Your task to perform on an android device: turn on bluetooth scan Image 0: 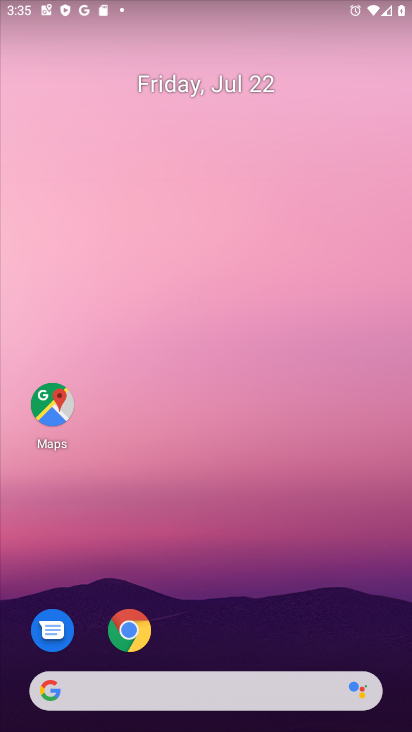
Step 0: drag from (220, 689) to (88, 84)
Your task to perform on an android device: turn on bluetooth scan Image 1: 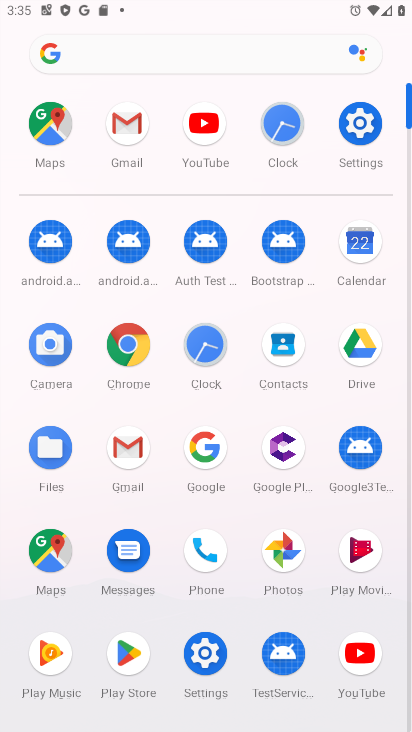
Step 1: click (341, 132)
Your task to perform on an android device: turn on bluetooth scan Image 2: 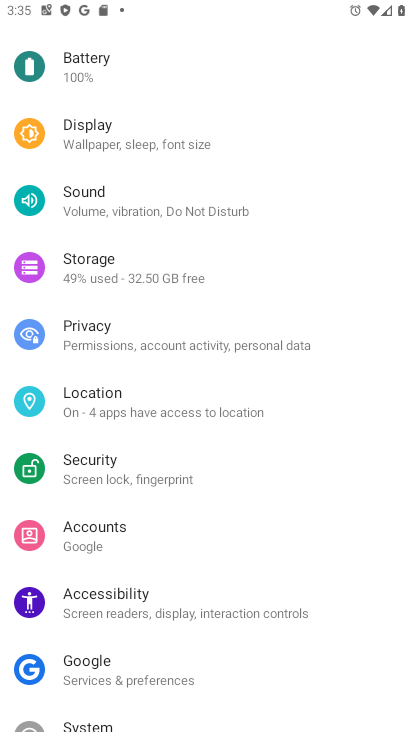
Step 2: click (164, 220)
Your task to perform on an android device: turn on bluetooth scan Image 3: 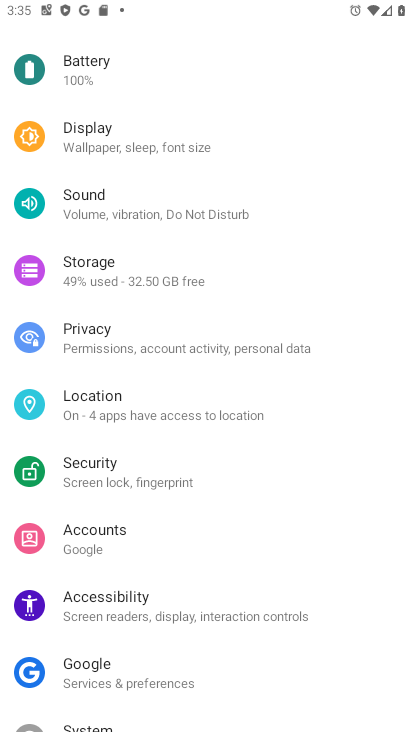
Step 3: click (105, 385)
Your task to perform on an android device: turn on bluetooth scan Image 4: 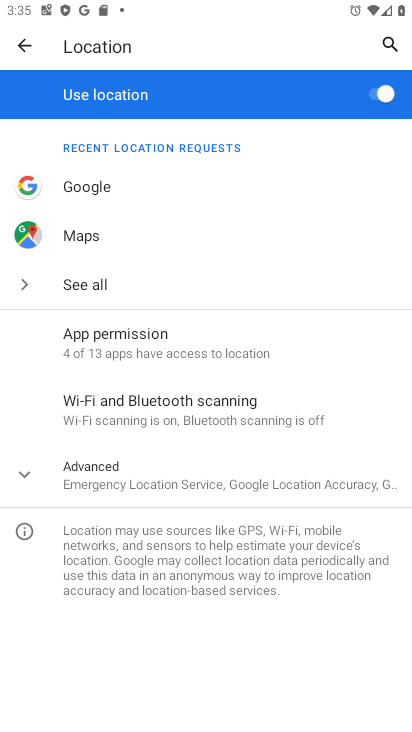
Step 4: click (157, 415)
Your task to perform on an android device: turn on bluetooth scan Image 5: 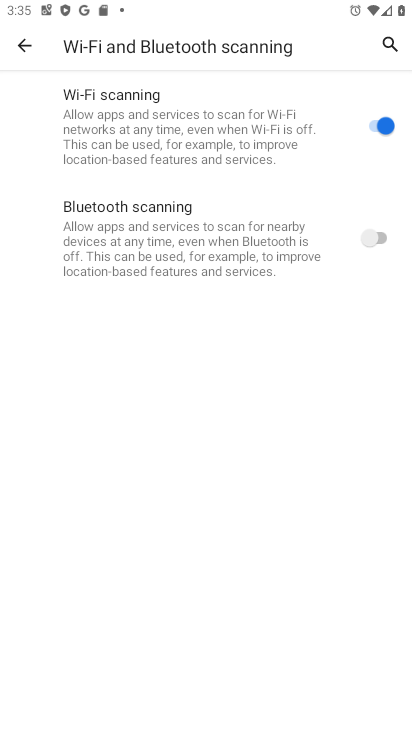
Step 5: click (372, 239)
Your task to perform on an android device: turn on bluetooth scan Image 6: 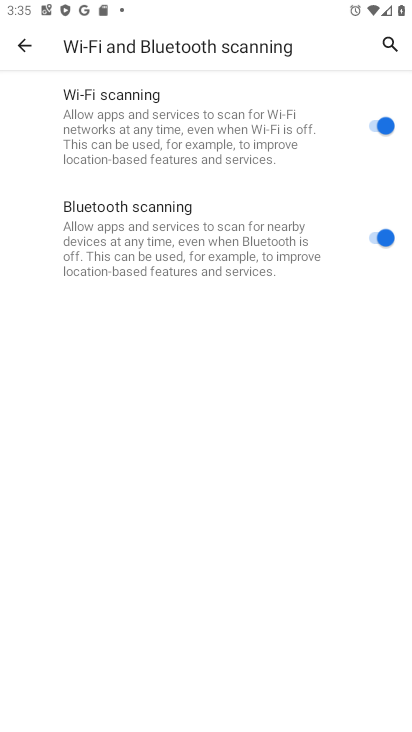
Step 6: task complete